Your task to perform on an android device: refresh tabs in the chrome app Image 0: 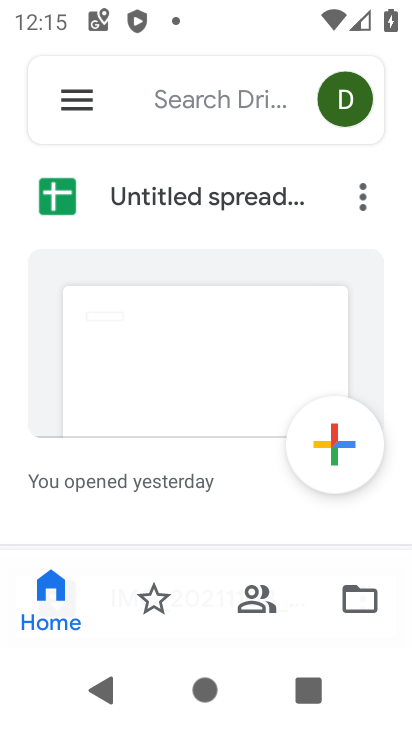
Step 0: press home button
Your task to perform on an android device: refresh tabs in the chrome app Image 1: 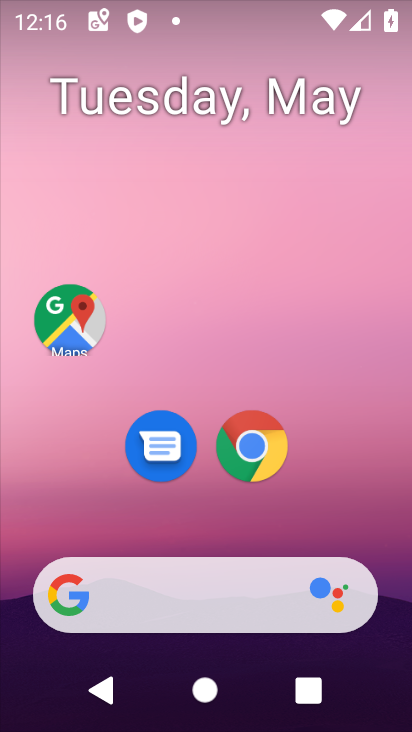
Step 1: drag from (373, 499) to (401, 132)
Your task to perform on an android device: refresh tabs in the chrome app Image 2: 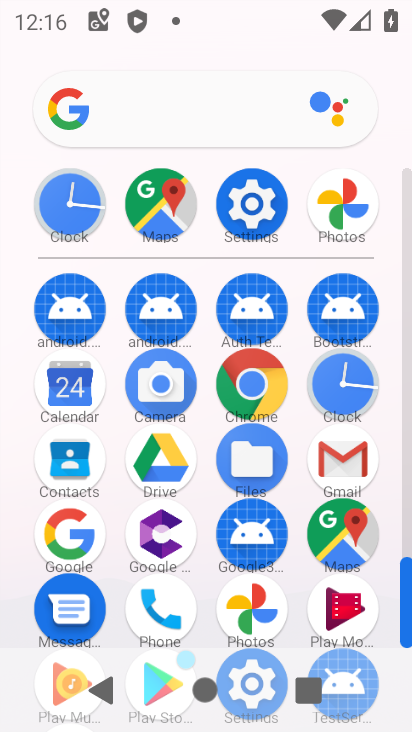
Step 2: click (250, 396)
Your task to perform on an android device: refresh tabs in the chrome app Image 3: 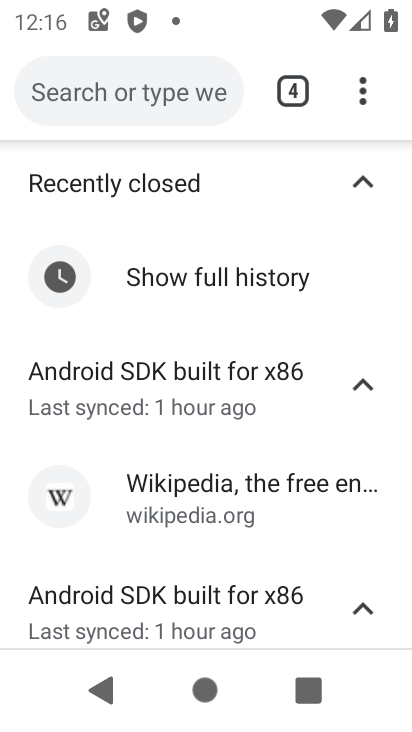
Step 3: task complete